Your task to perform on an android device: Search for Italian restaurants on Maps Image 0: 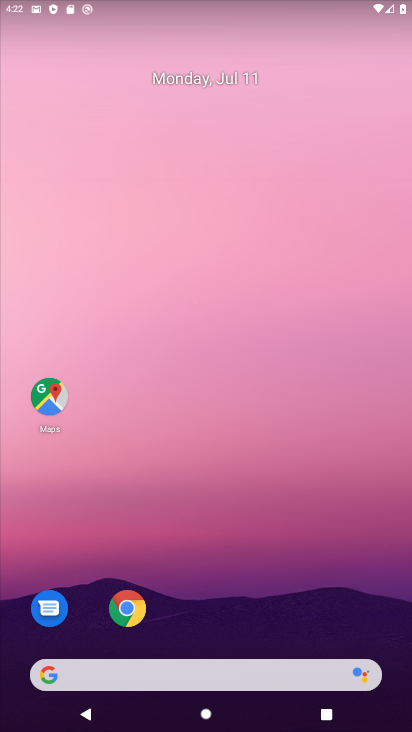
Step 0: drag from (268, 704) to (203, 305)
Your task to perform on an android device: Search for Italian restaurants on Maps Image 1: 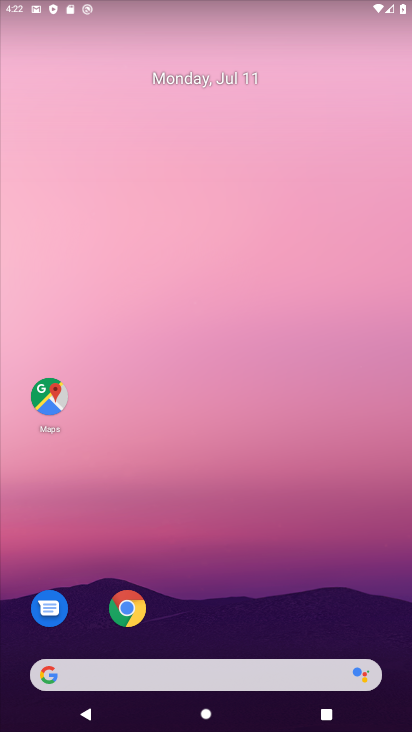
Step 1: drag from (290, 675) to (168, 11)
Your task to perform on an android device: Search for Italian restaurants on Maps Image 2: 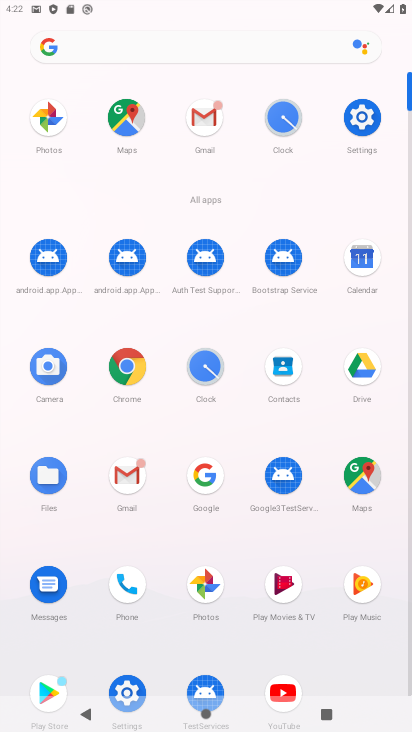
Step 2: click (359, 476)
Your task to perform on an android device: Search for Italian restaurants on Maps Image 3: 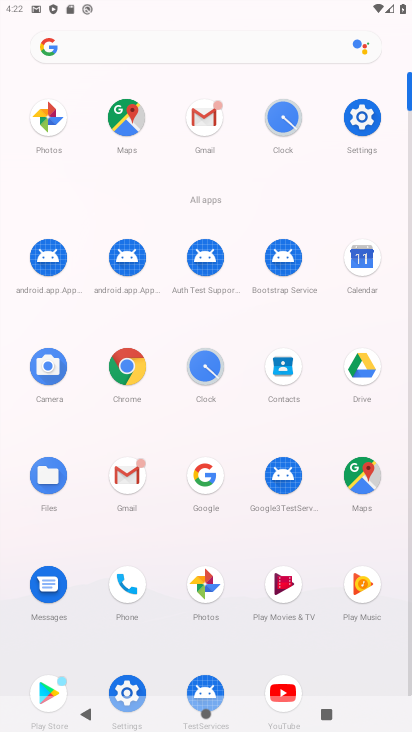
Step 3: click (364, 480)
Your task to perform on an android device: Search for Italian restaurants on Maps Image 4: 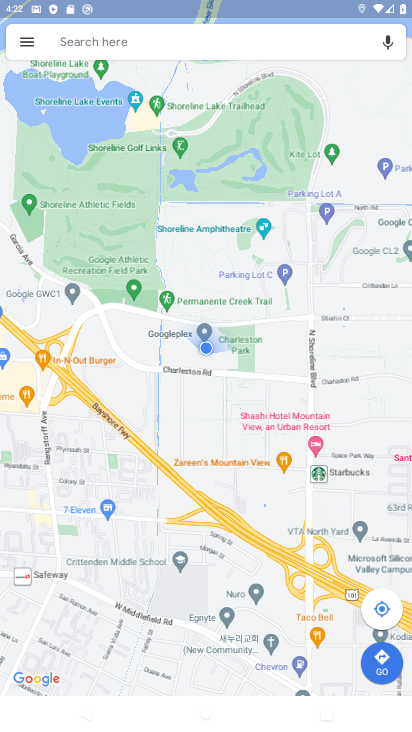
Step 4: type "italian restaurants"
Your task to perform on an android device: Search for Italian restaurants on Maps Image 5: 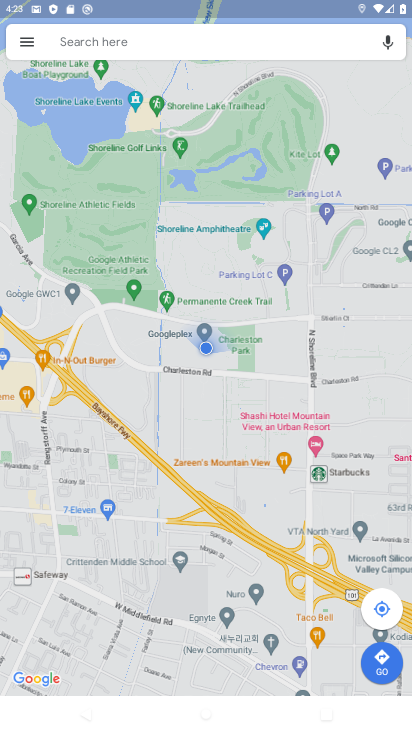
Step 5: click (70, 44)
Your task to perform on an android device: Search for Italian restaurants on Maps Image 6: 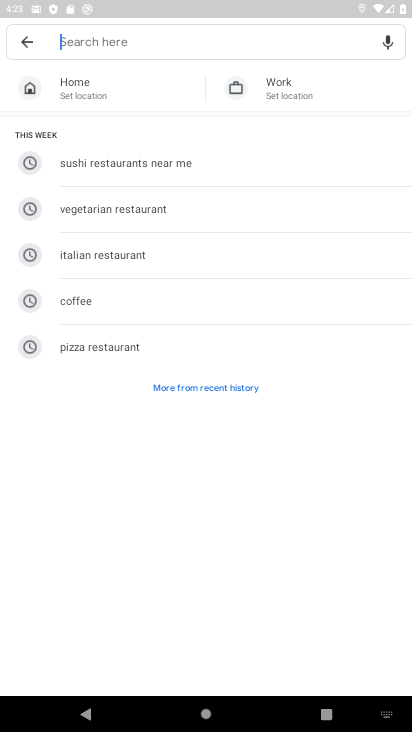
Step 6: click (143, 245)
Your task to perform on an android device: Search for Italian restaurants on Maps Image 7: 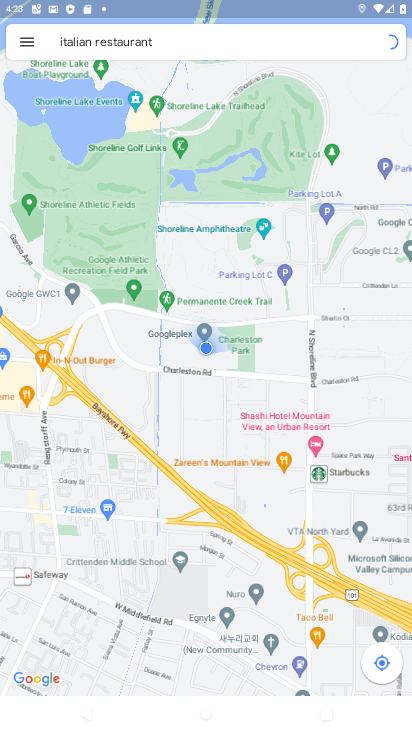
Step 7: task complete